Your task to perform on an android device: open a bookmark in the chrome app Image 0: 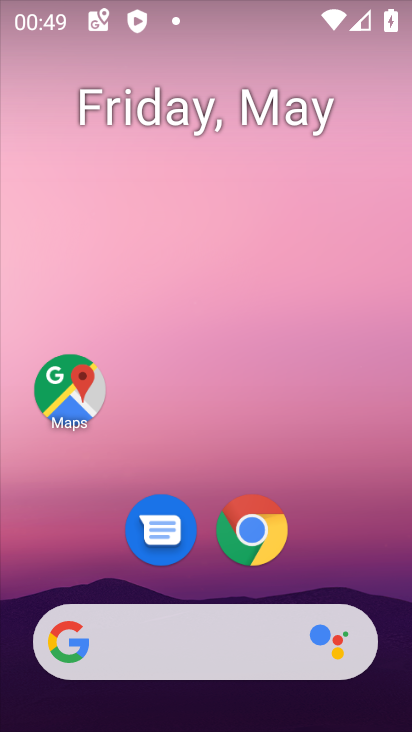
Step 0: click (252, 530)
Your task to perform on an android device: open a bookmark in the chrome app Image 1: 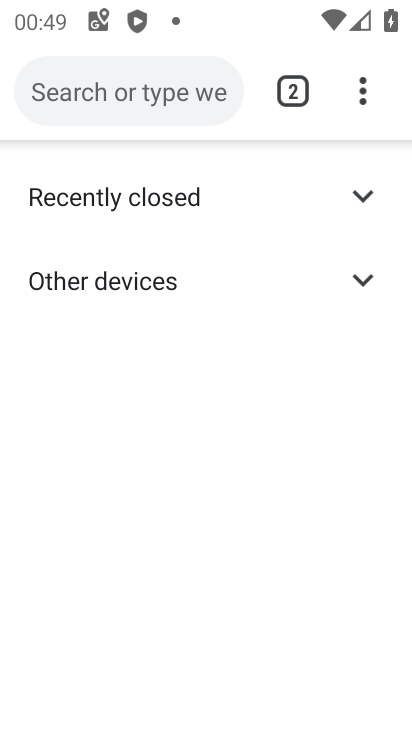
Step 1: click (362, 94)
Your task to perform on an android device: open a bookmark in the chrome app Image 2: 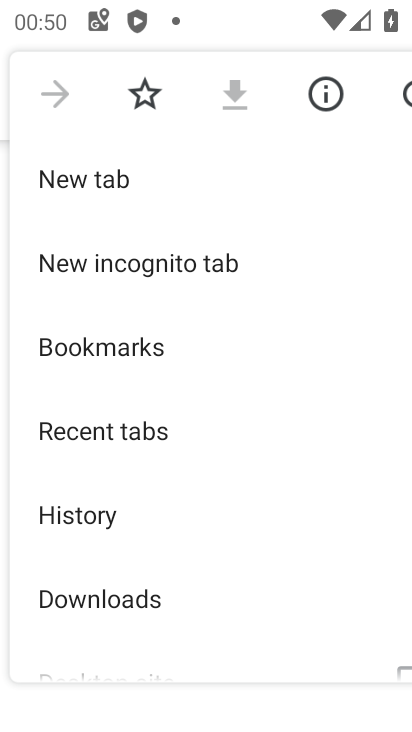
Step 2: click (150, 346)
Your task to perform on an android device: open a bookmark in the chrome app Image 3: 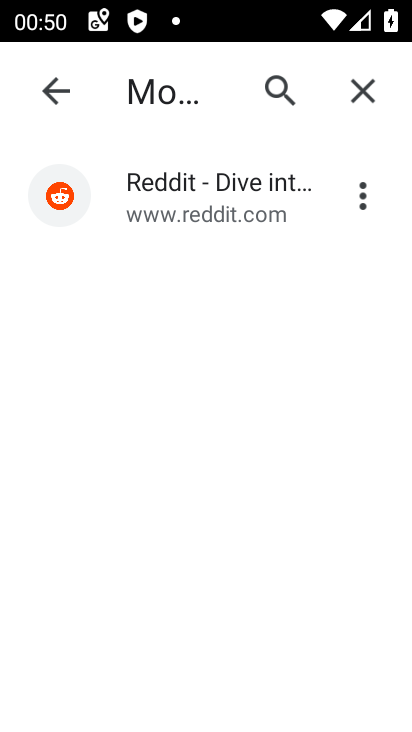
Step 3: task complete